Your task to perform on an android device: Open Yahoo.com Image 0: 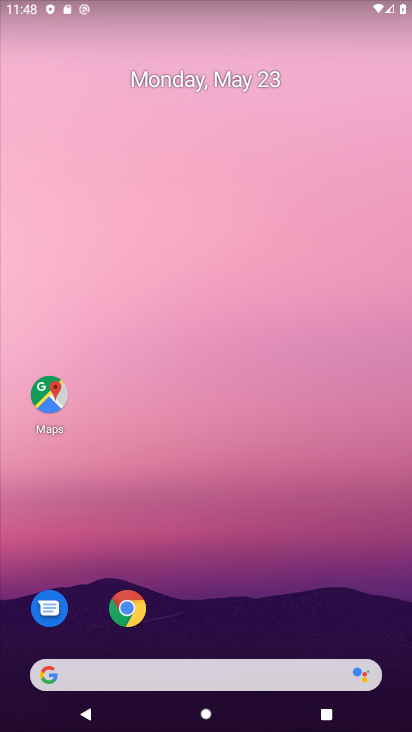
Step 0: press home button
Your task to perform on an android device: Open Yahoo.com Image 1: 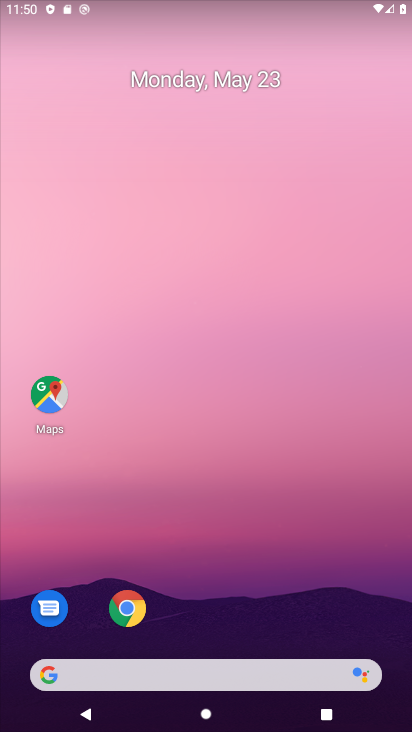
Step 1: drag from (290, 657) to (251, 52)
Your task to perform on an android device: Open Yahoo.com Image 2: 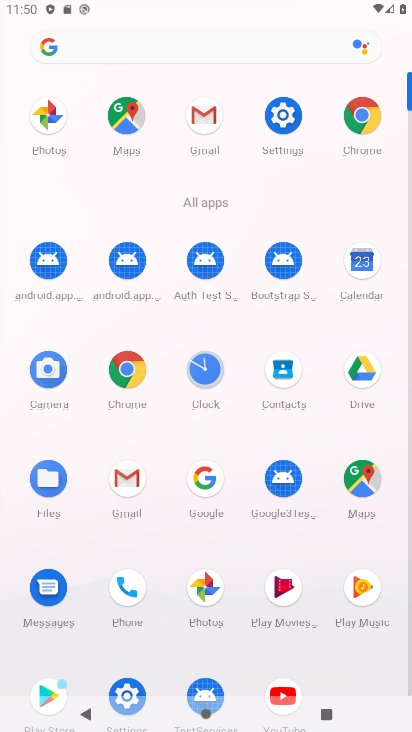
Step 2: click (359, 121)
Your task to perform on an android device: Open Yahoo.com Image 3: 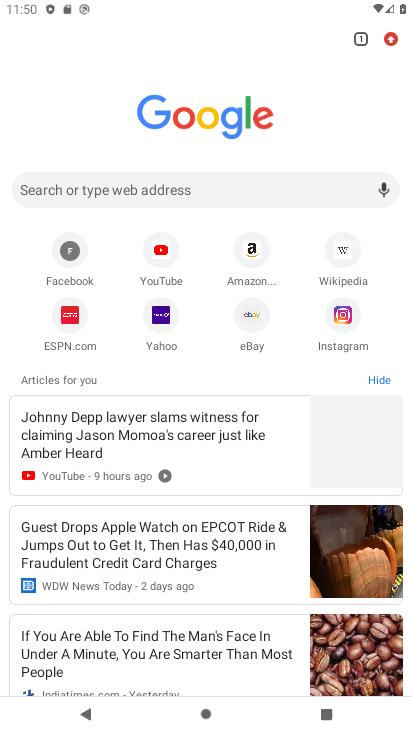
Step 3: click (160, 318)
Your task to perform on an android device: Open Yahoo.com Image 4: 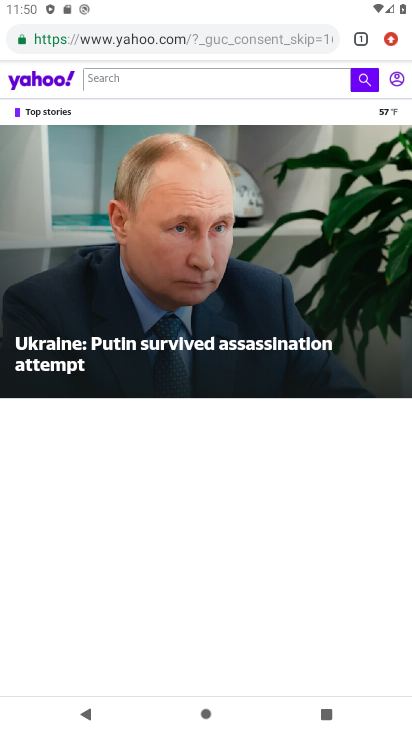
Step 4: task complete